Your task to perform on an android device: Add "usb-b" to the cart on amazon Image 0: 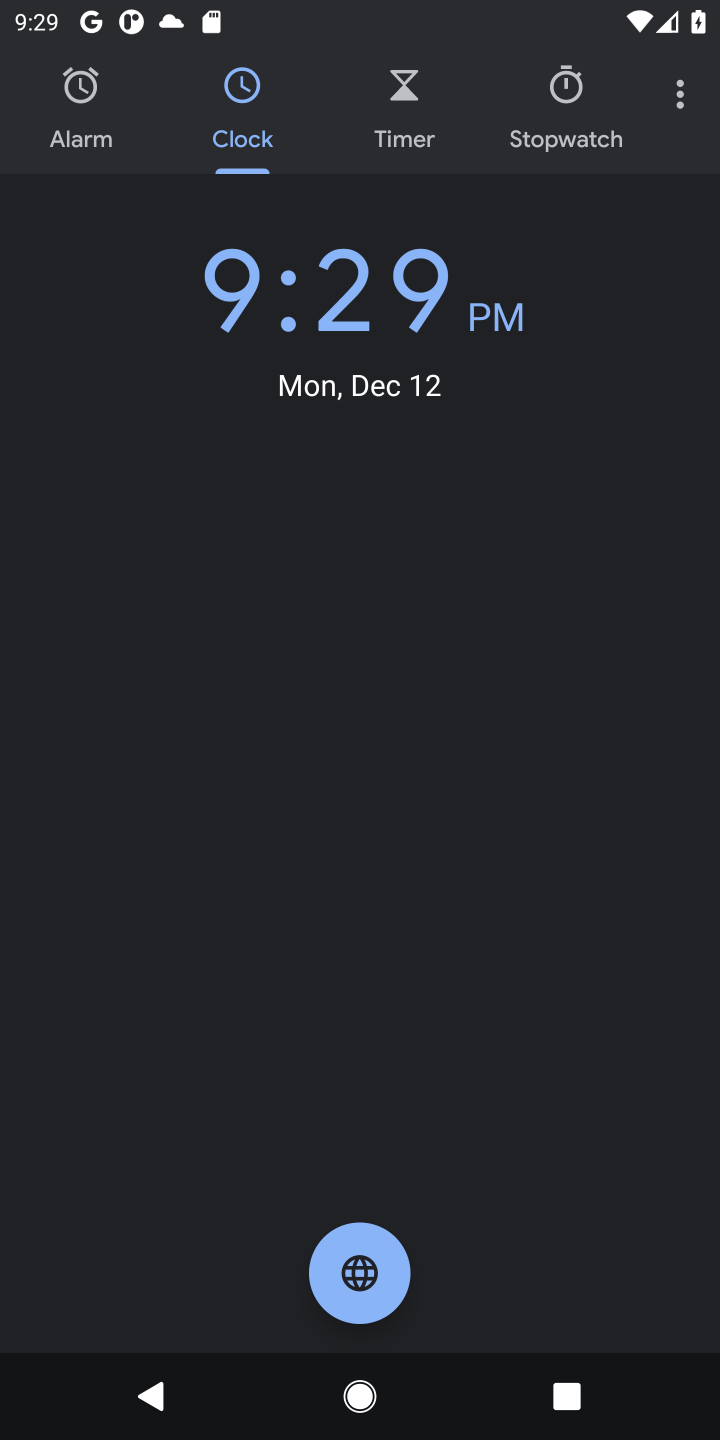
Step 0: press home button
Your task to perform on an android device: Add "usb-b" to the cart on amazon Image 1: 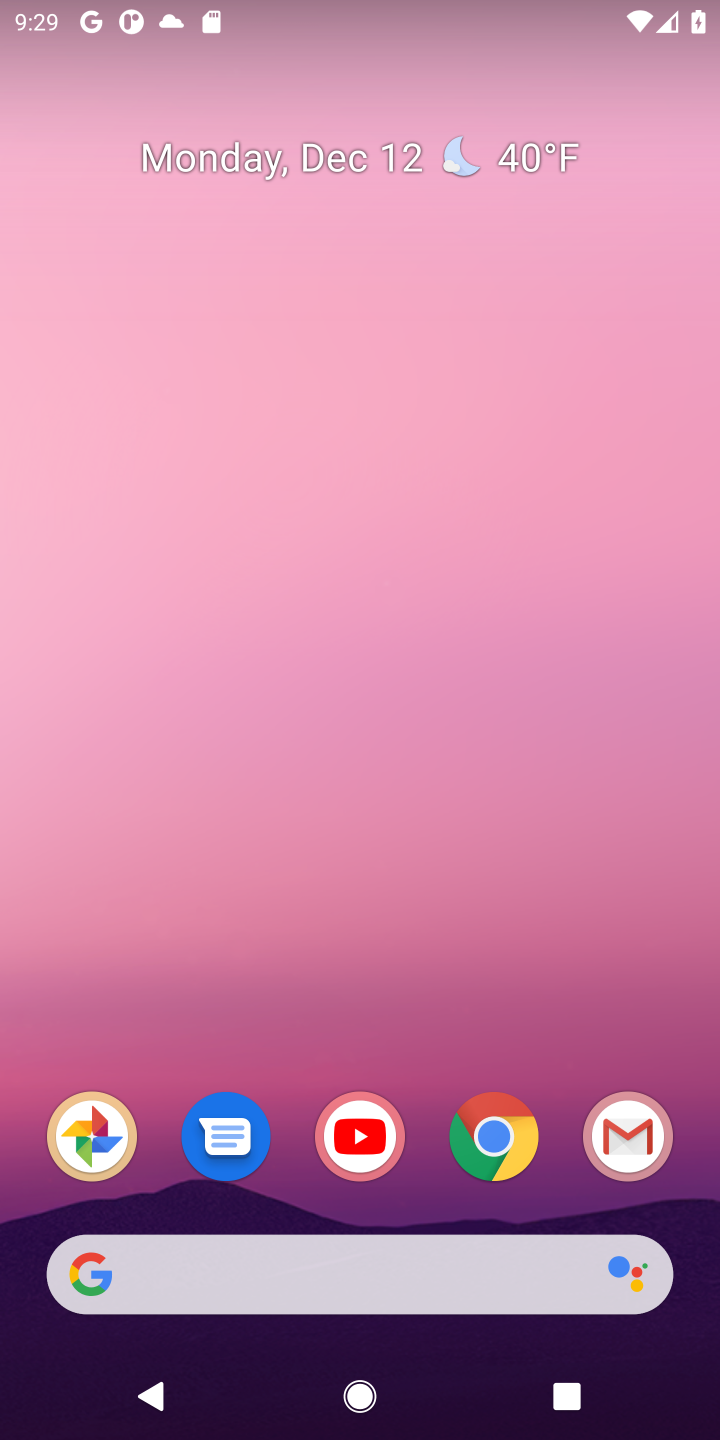
Step 1: click (502, 1148)
Your task to perform on an android device: Add "usb-b" to the cart on amazon Image 2: 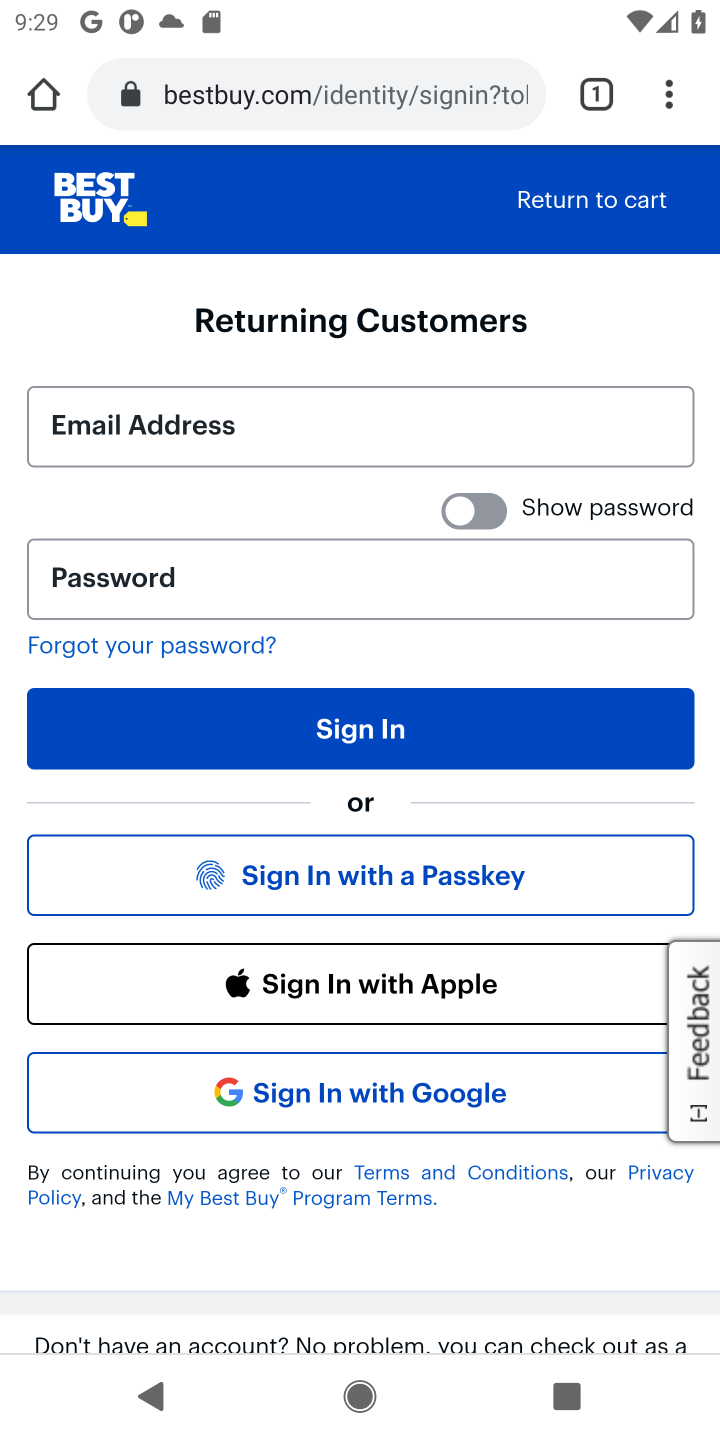
Step 2: click (279, 99)
Your task to perform on an android device: Add "usb-b" to the cart on amazon Image 3: 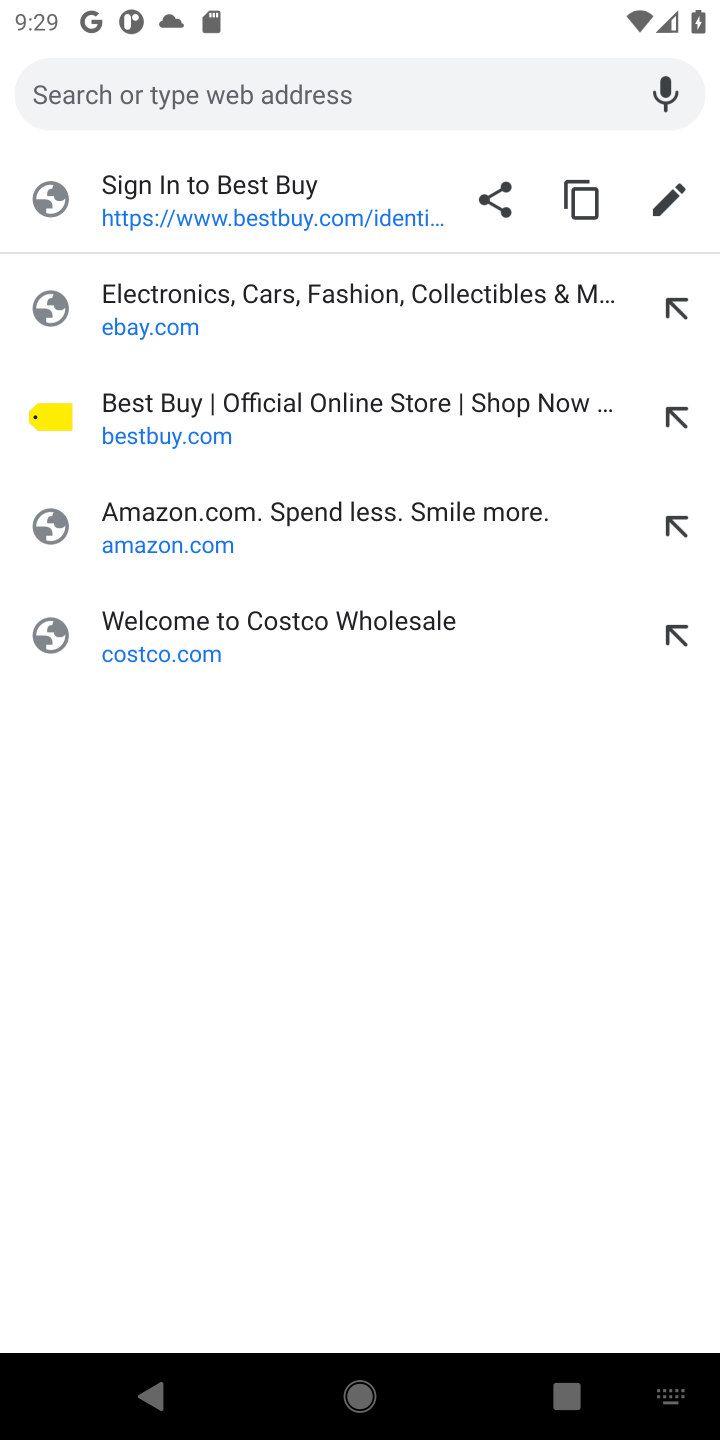
Step 3: click (126, 541)
Your task to perform on an android device: Add "usb-b" to the cart on amazon Image 4: 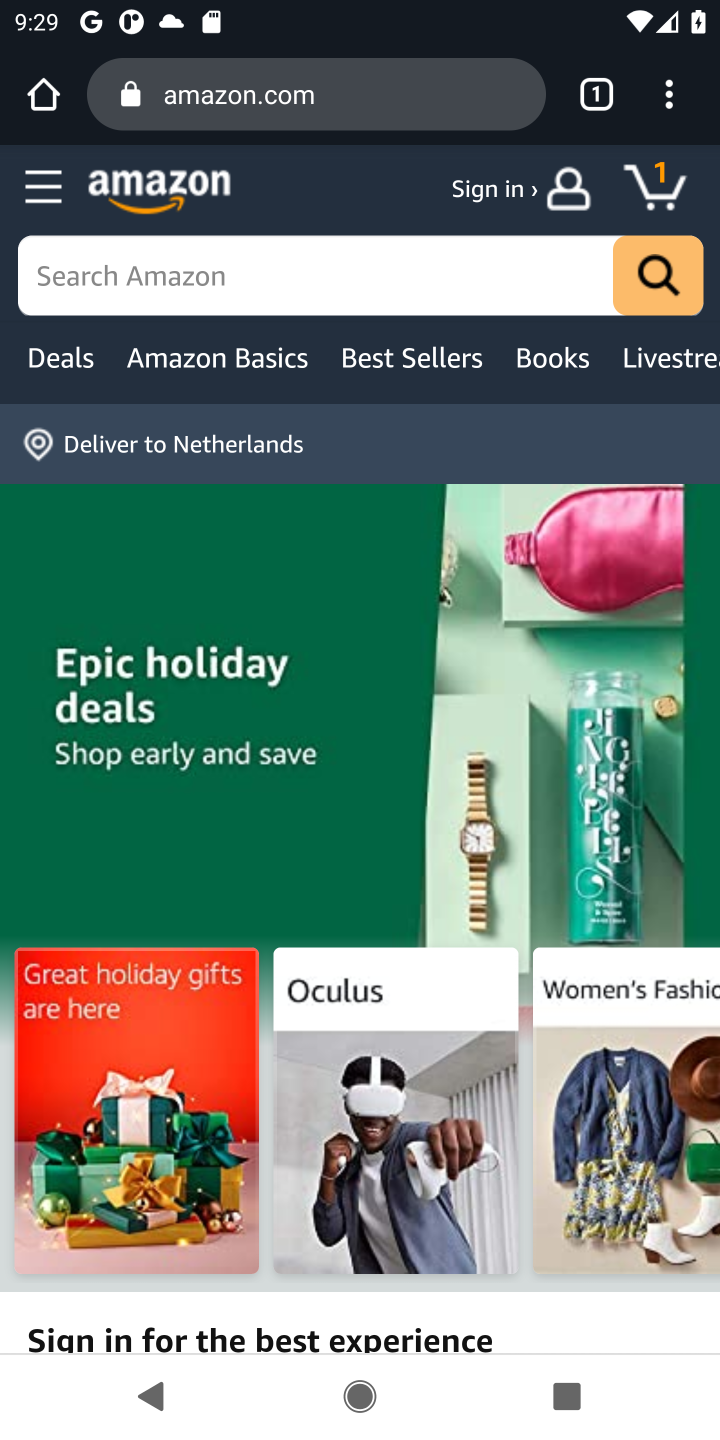
Step 4: click (213, 278)
Your task to perform on an android device: Add "usb-b" to the cart on amazon Image 5: 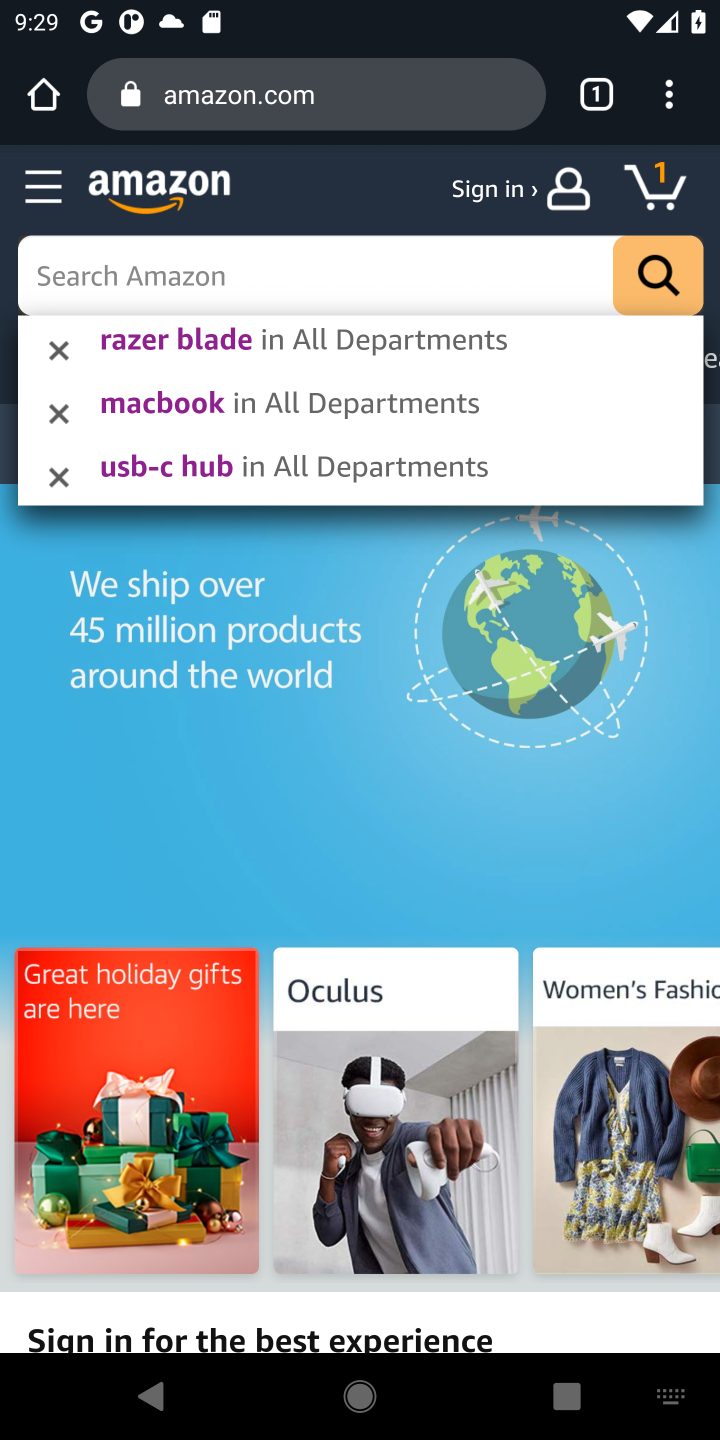
Step 5: type "usb-b"
Your task to perform on an android device: Add "usb-b" to the cart on amazon Image 6: 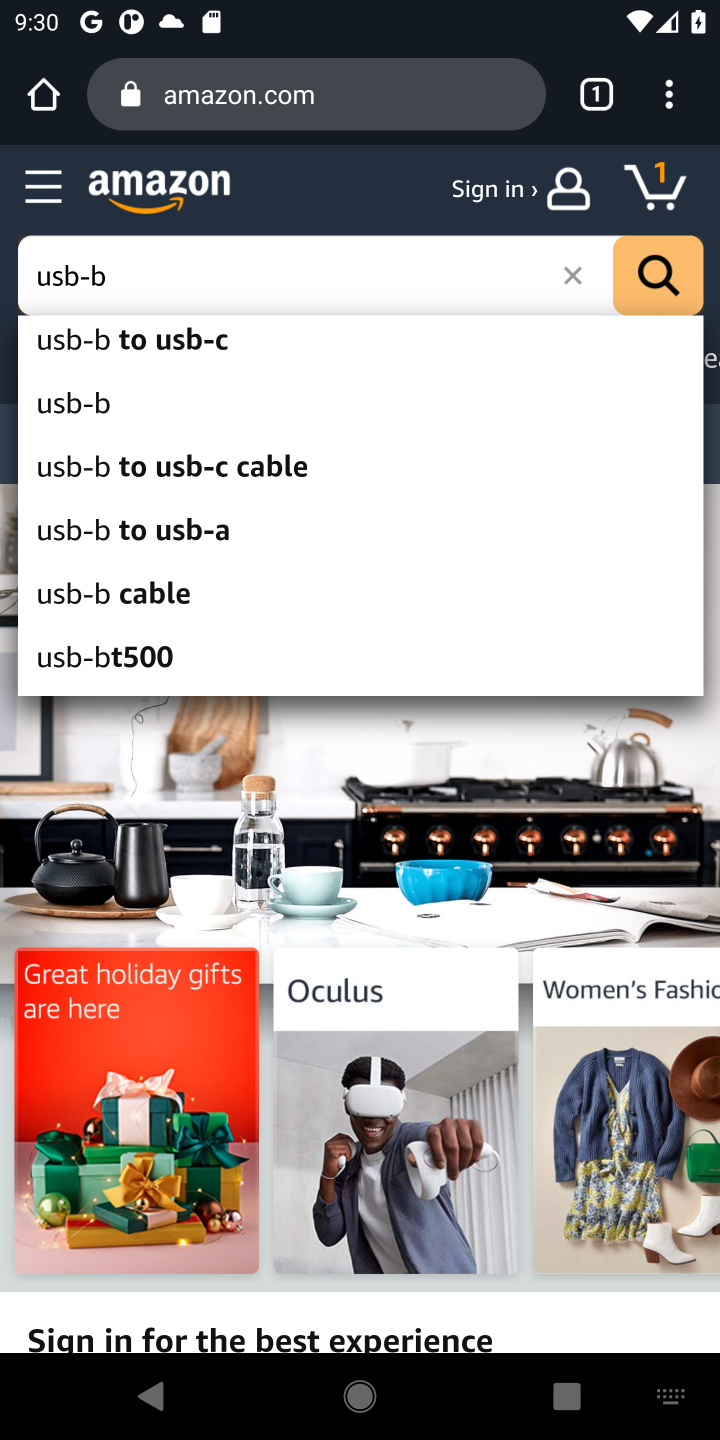
Step 6: click (77, 403)
Your task to perform on an android device: Add "usb-b" to the cart on amazon Image 7: 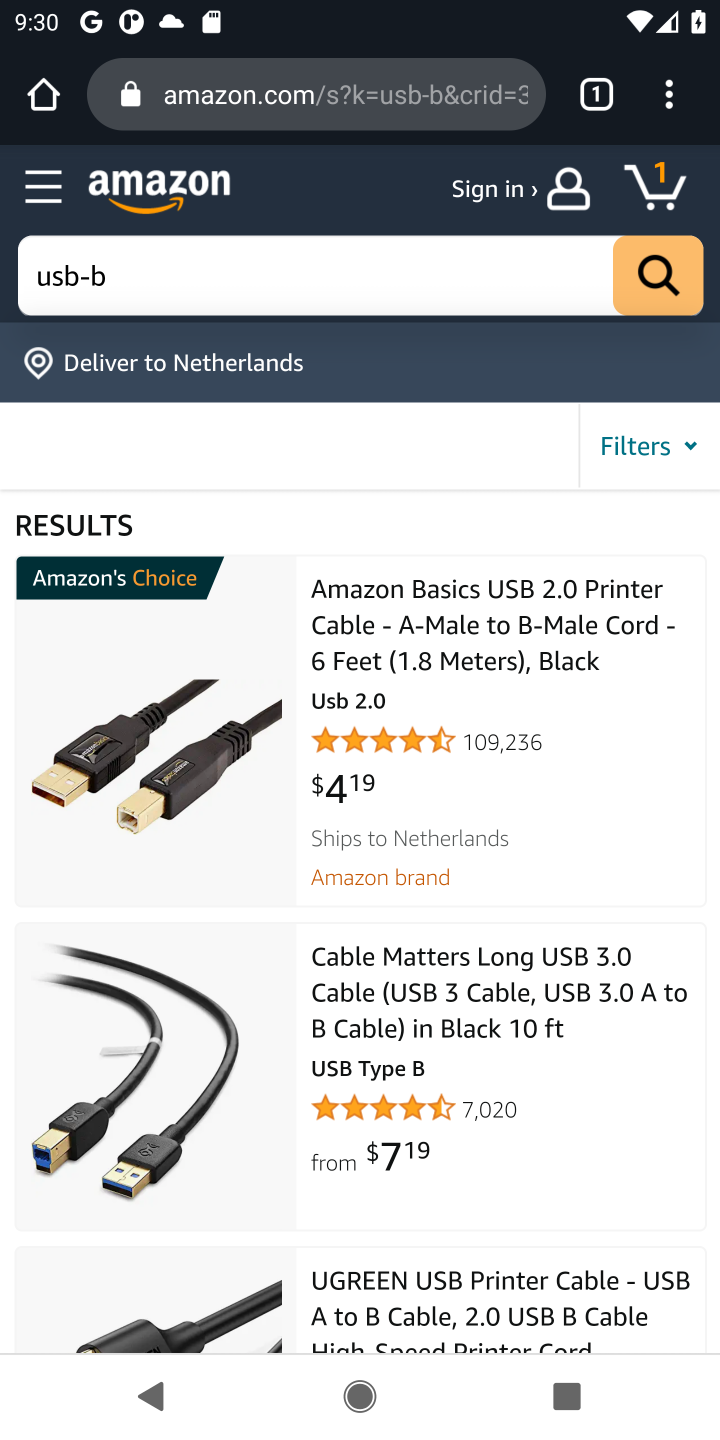
Step 7: click (424, 620)
Your task to perform on an android device: Add "usb-b" to the cart on amazon Image 8: 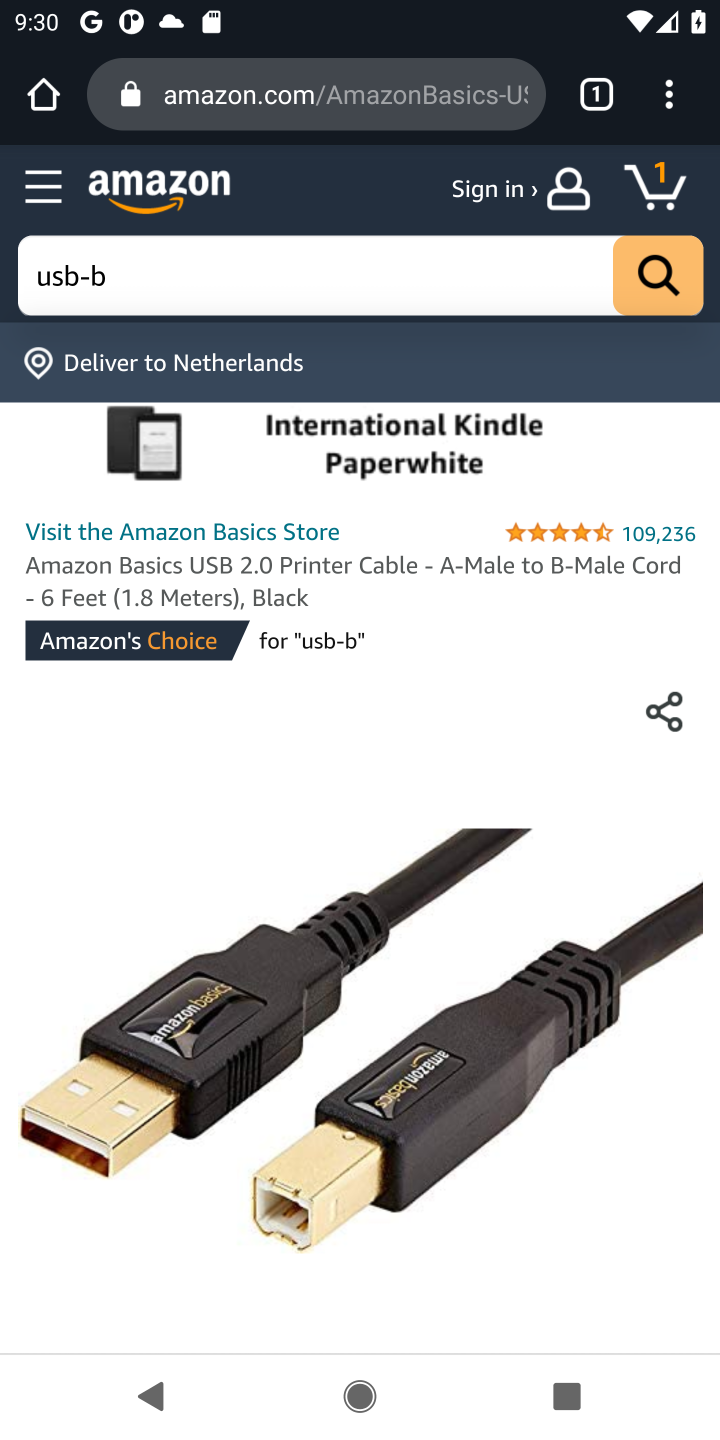
Step 8: click (318, 382)
Your task to perform on an android device: Add "usb-b" to the cart on amazon Image 9: 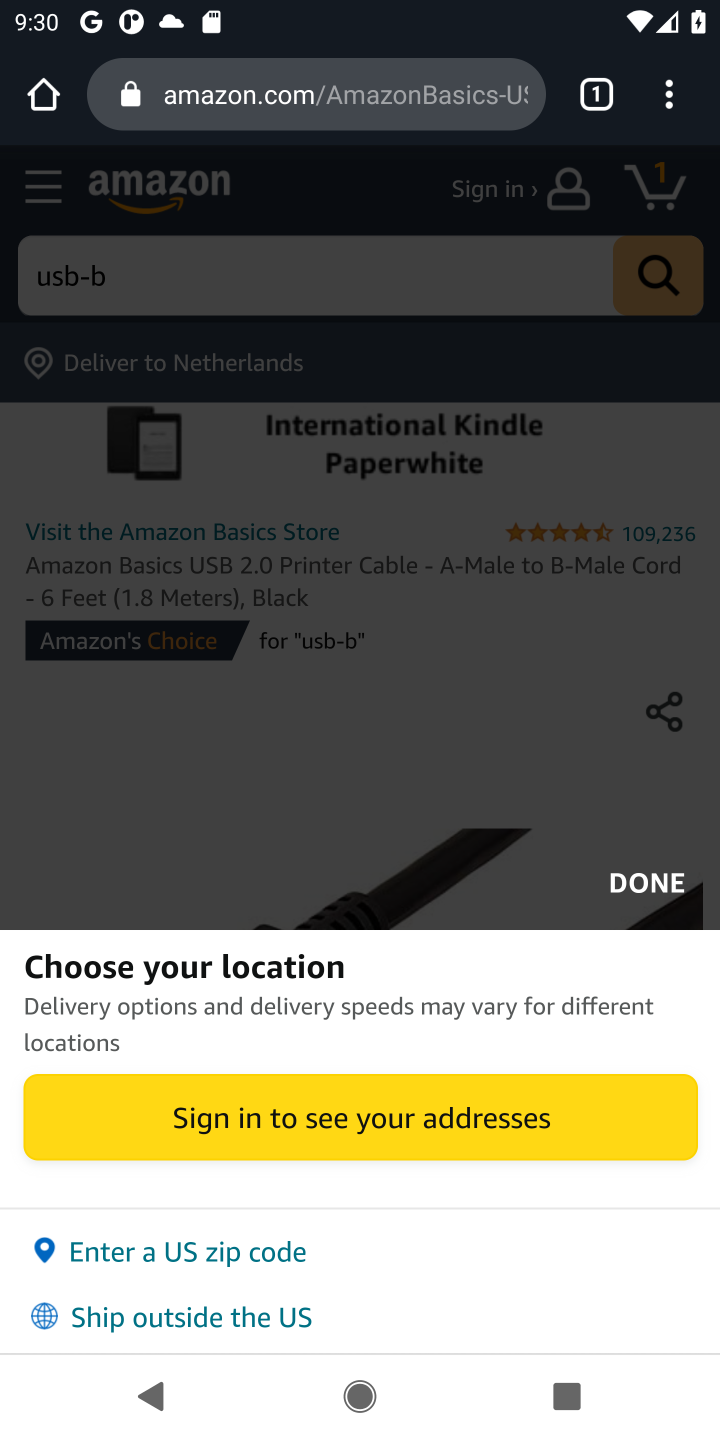
Step 9: drag from (424, 780) to (377, 482)
Your task to perform on an android device: Add "usb-b" to the cart on amazon Image 10: 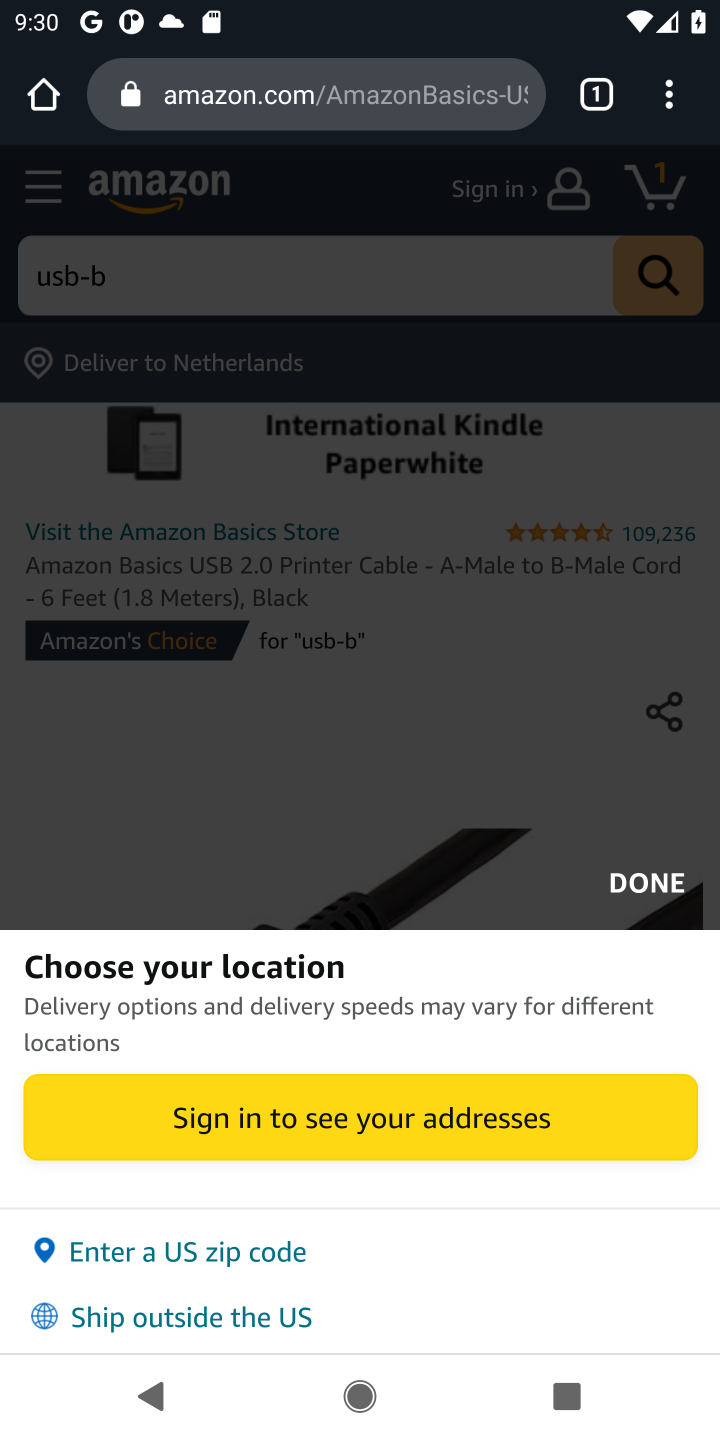
Step 10: click (598, 461)
Your task to perform on an android device: Add "usb-b" to the cart on amazon Image 11: 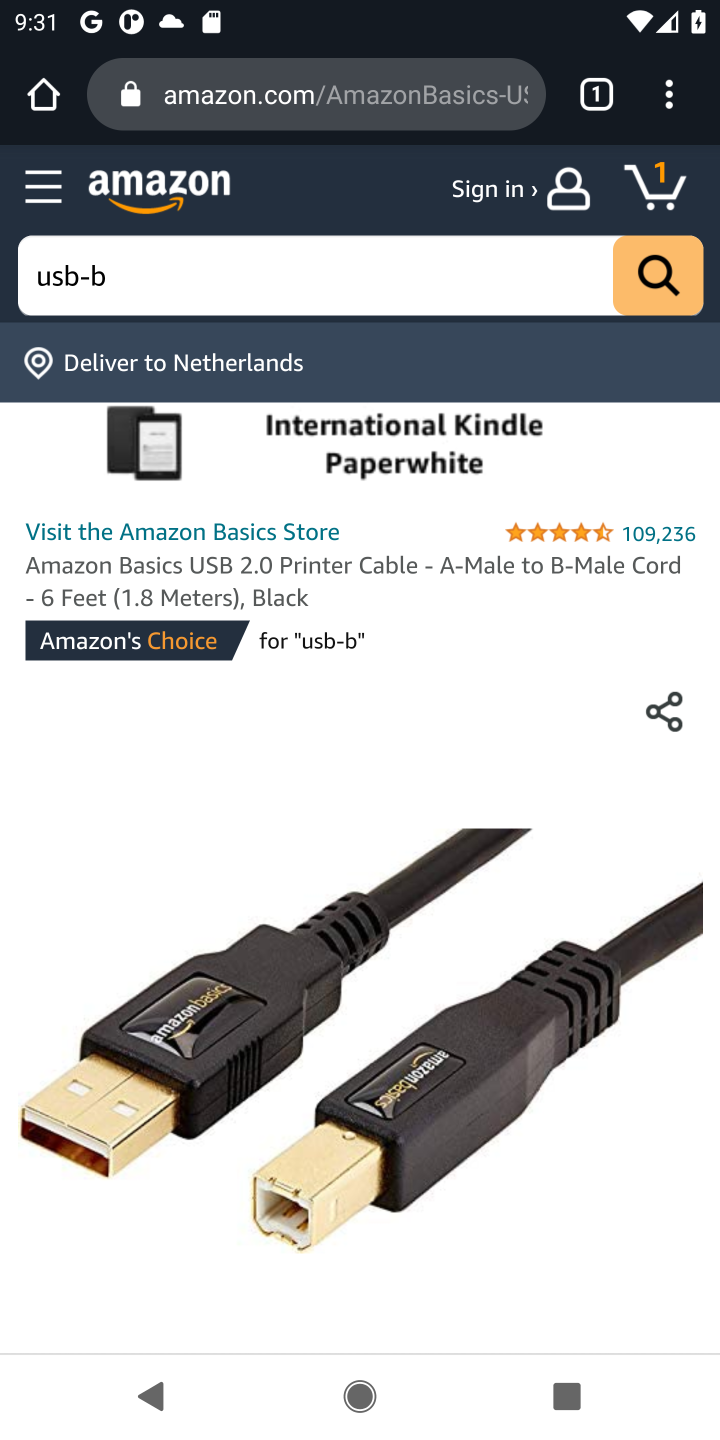
Step 11: drag from (366, 1052) to (352, 383)
Your task to perform on an android device: Add "usb-b" to the cart on amazon Image 12: 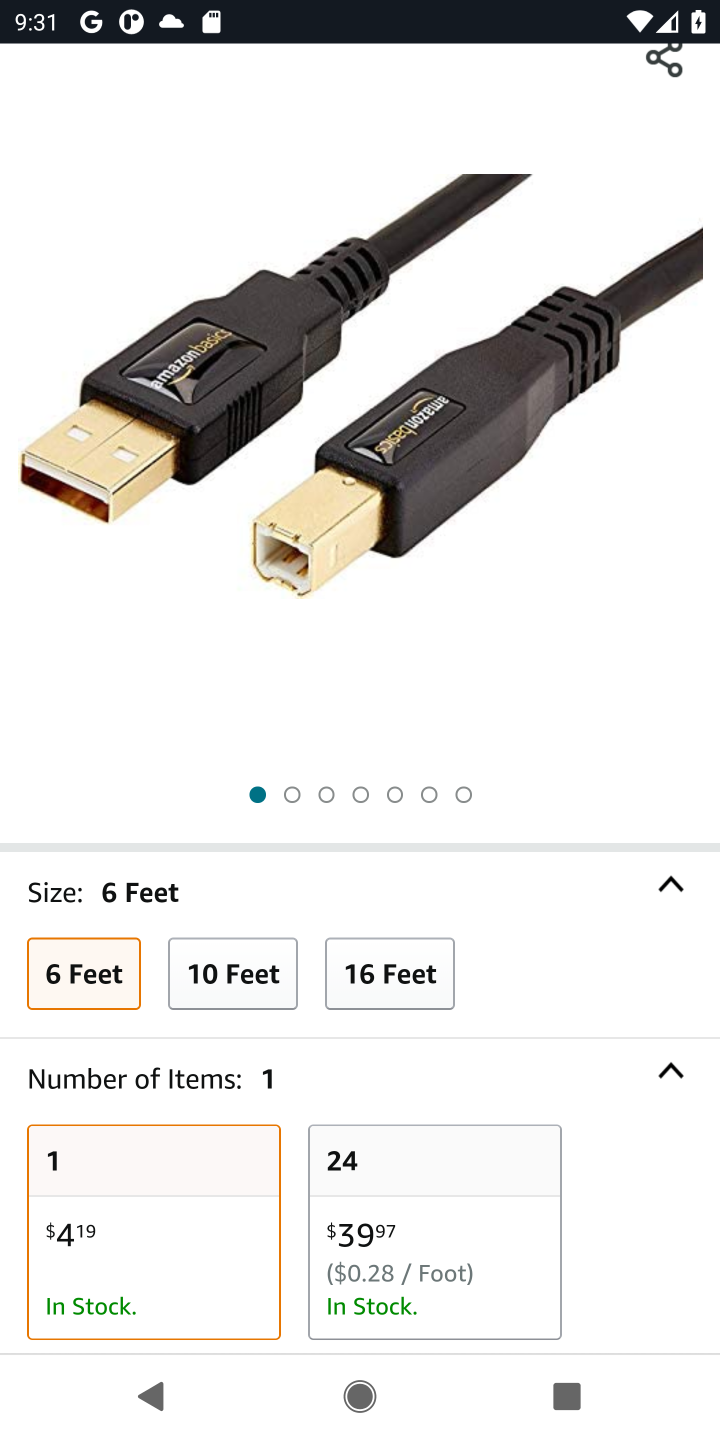
Step 12: drag from (418, 962) to (401, 336)
Your task to perform on an android device: Add "usb-b" to the cart on amazon Image 13: 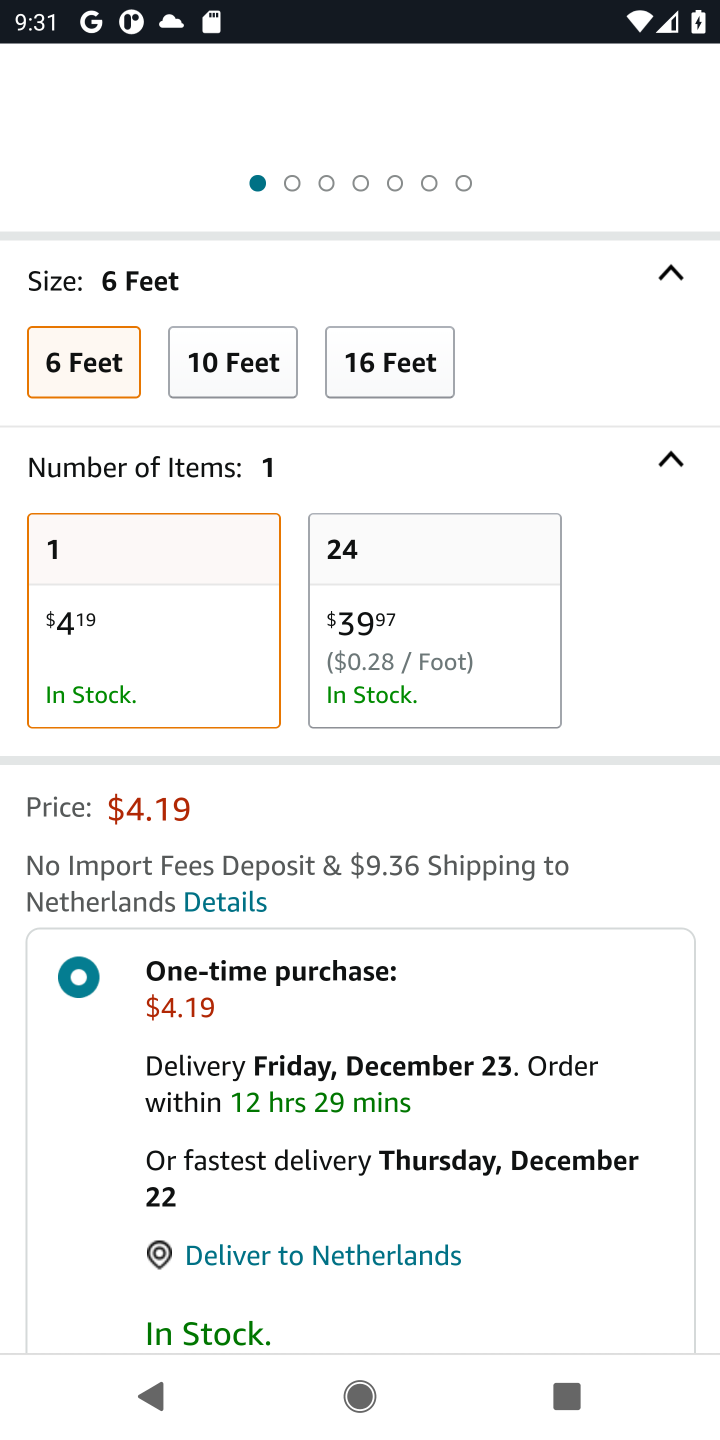
Step 13: drag from (357, 1018) to (368, 371)
Your task to perform on an android device: Add "usb-b" to the cart on amazon Image 14: 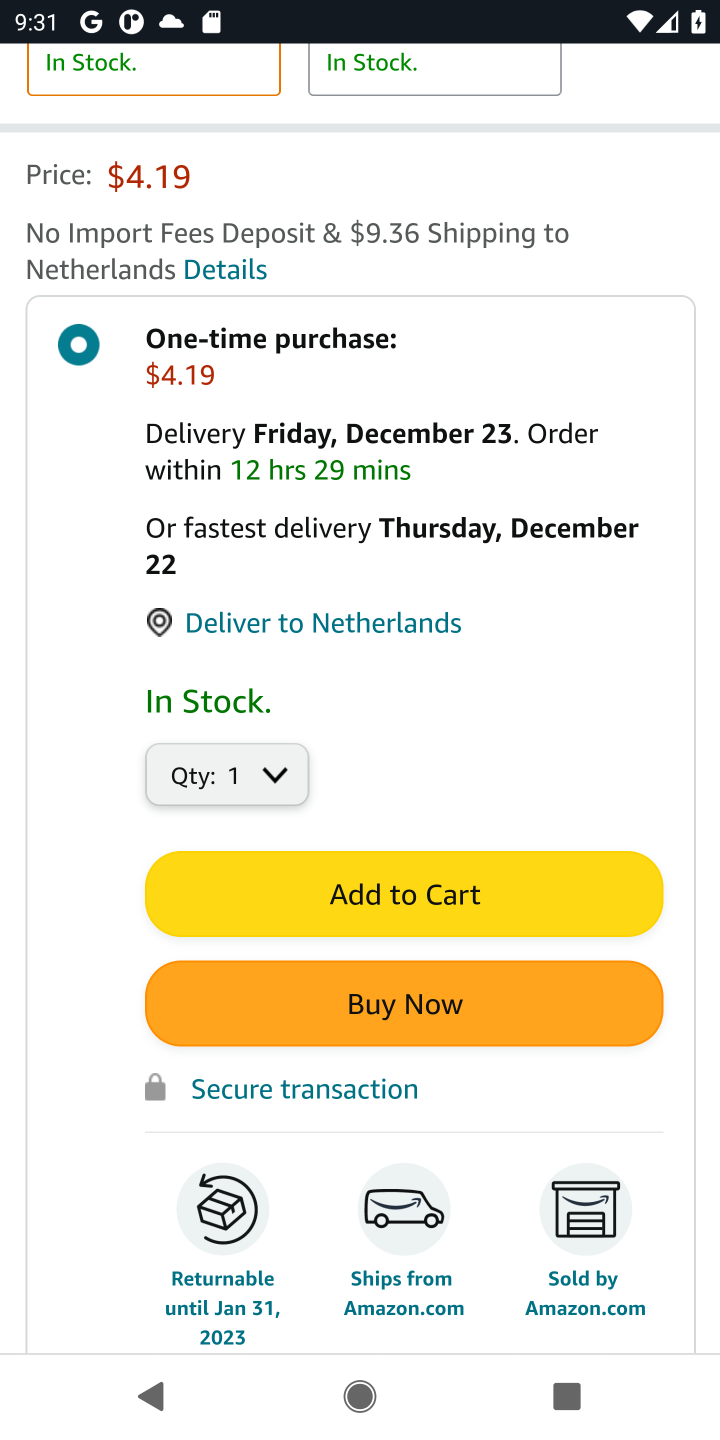
Step 14: click (365, 897)
Your task to perform on an android device: Add "usb-b" to the cart on amazon Image 15: 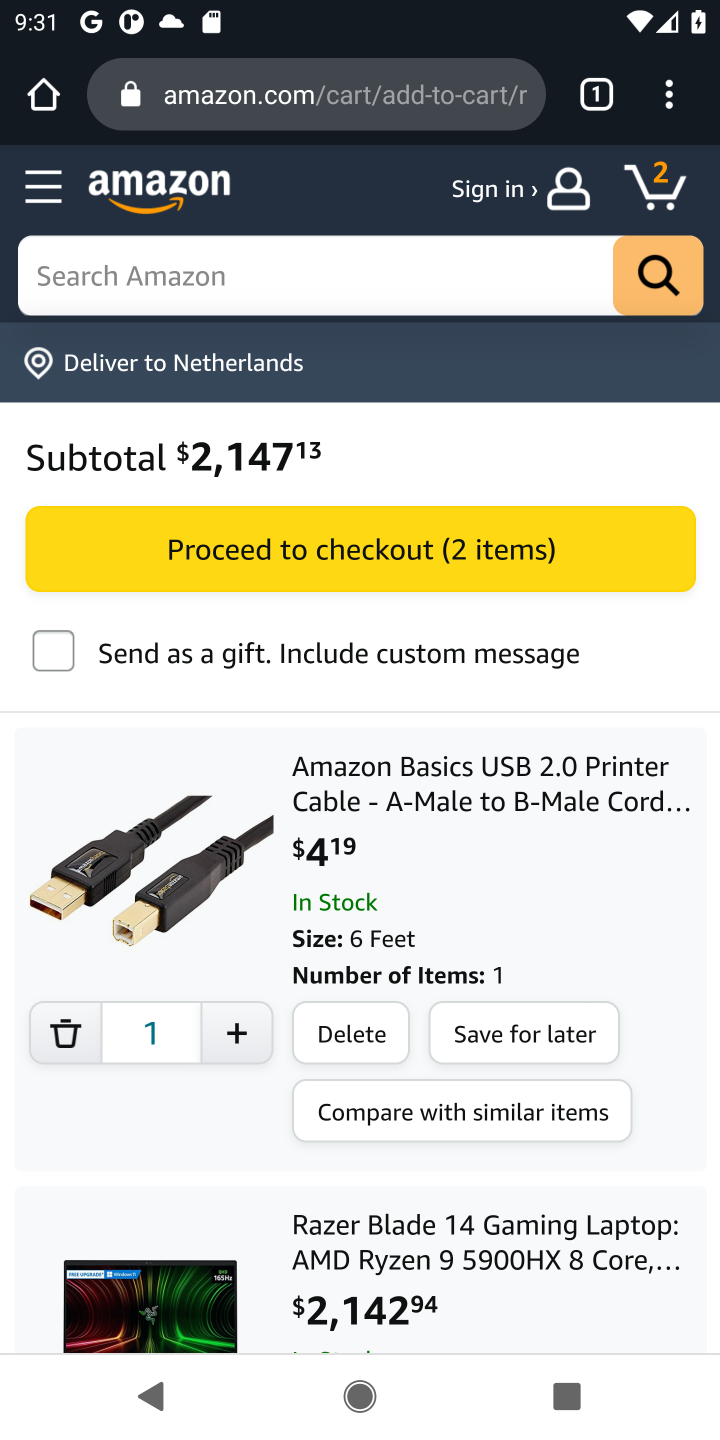
Step 15: task complete